Your task to perform on an android device: toggle wifi Image 0: 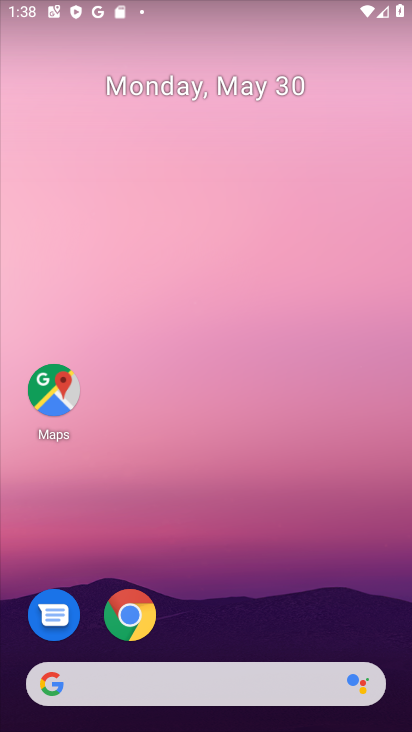
Step 0: drag from (310, 1) to (289, 419)
Your task to perform on an android device: toggle wifi Image 1: 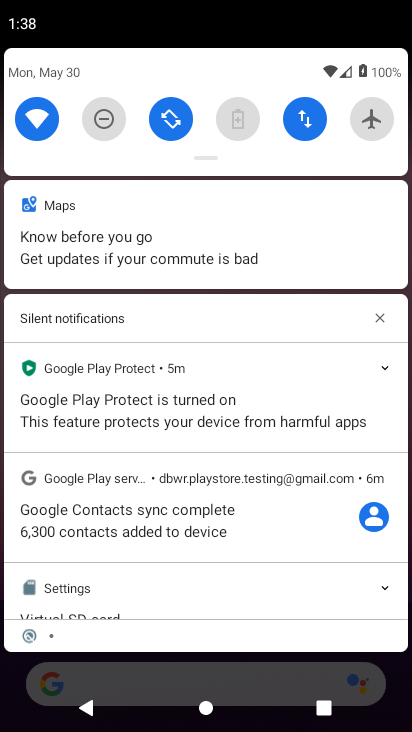
Step 1: click (30, 117)
Your task to perform on an android device: toggle wifi Image 2: 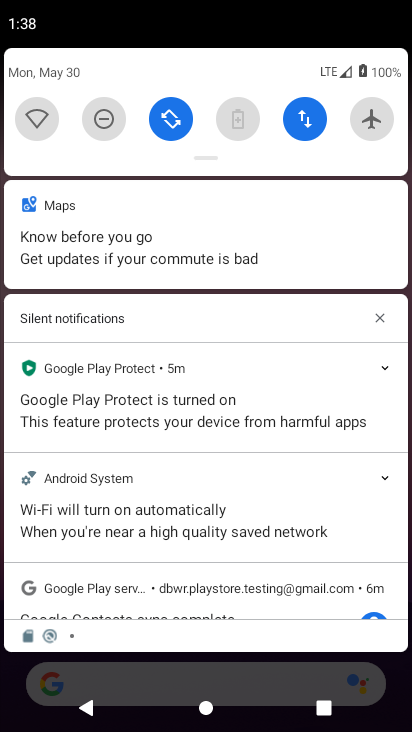
Step 2: task complete